Your task to perform on an android device: add a label to a message in the gmail app Image 0: 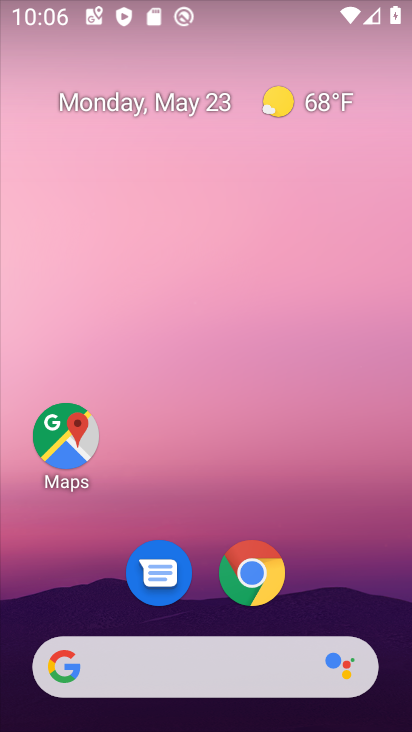
Step 0: drag from (270, 529) to (275, 23)
Your task to perform on an android device: add a label to a message in the gmail app Image 1: 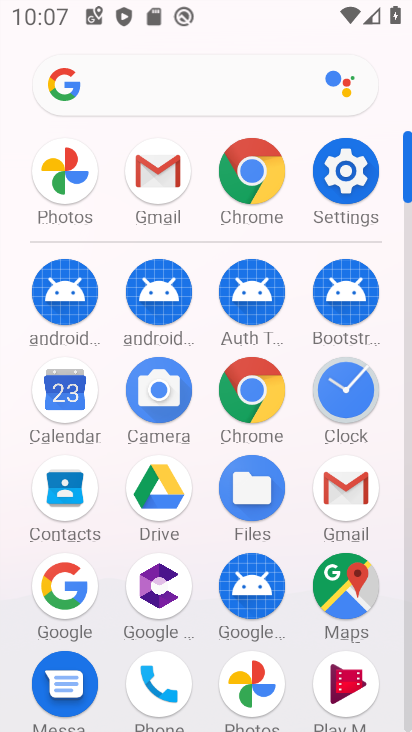
Step 1: click (355, 489)
Your task to perform on an android device: add a label to a message in the gmail app Image 2: 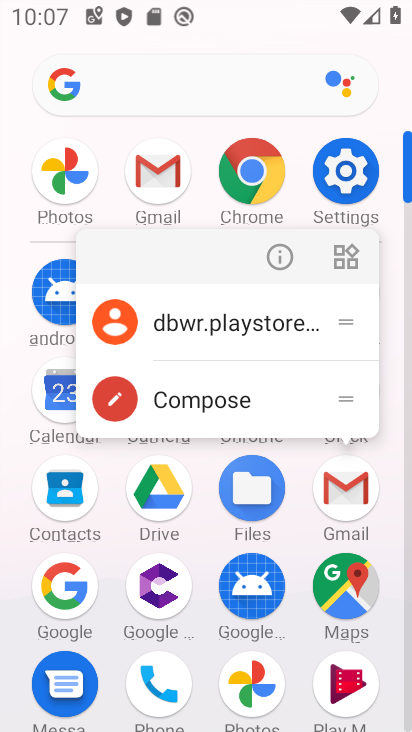
Step 2: click (336, 497)
Your task to perform on an android device: add a label to a message in the gmail app Image 3: 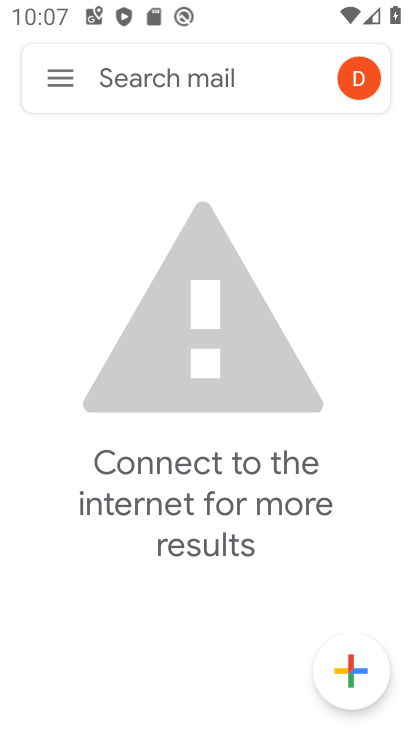
Step 3: click (74, 88)
Your task to perform on an android device: add a label to a message in the gmail app Image 4: 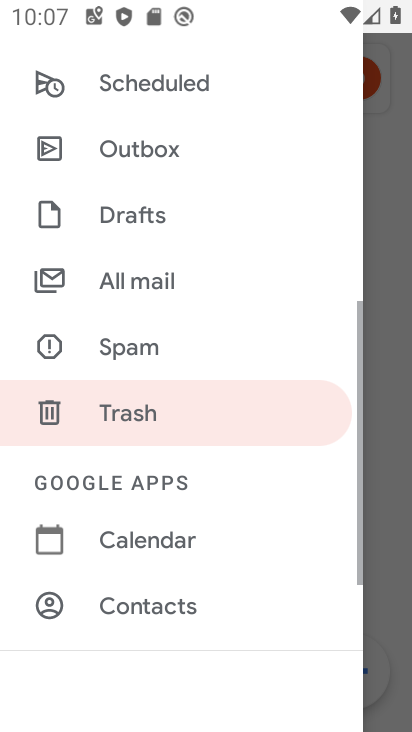
Step 4: click (169, 312)
Your task to perform on an android device: add a label to a message in the gmail app Image 5: 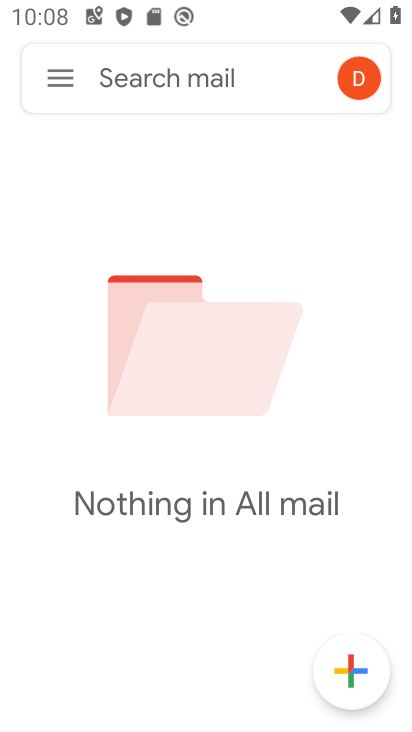
Step 5: task complete